Your task to perform on an android device: Search for Italian restaurants on Maps Image 0: 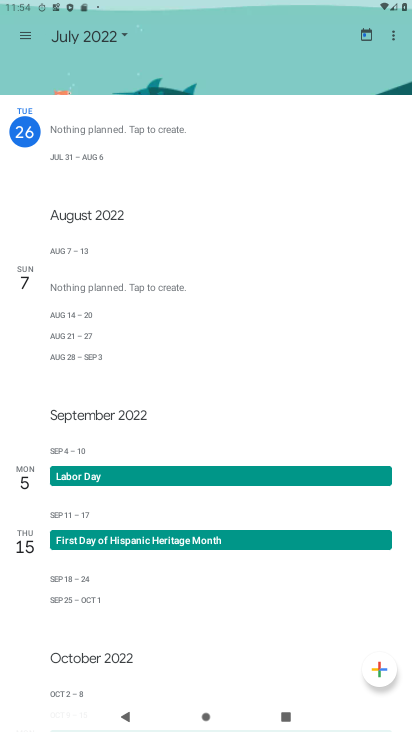
Step 0: press home button
Your task to perform on an android device: Search for Italian restaurants on Maps Image 1: 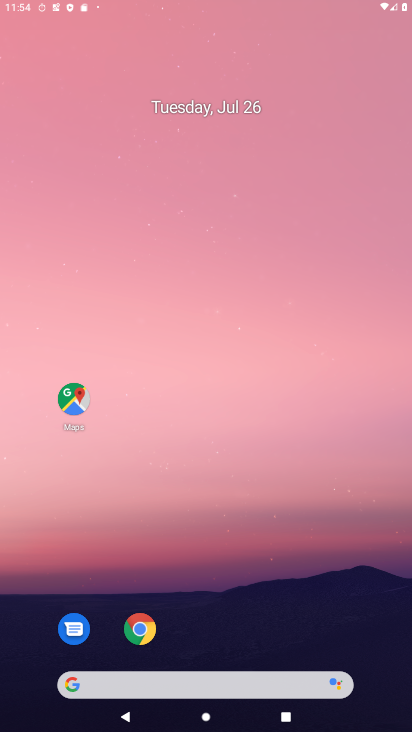
Step 1: drag from (379, 631) to (149, 51)
Your task to perform on an android device: Search for Italian restaurants on Maps Image 2: 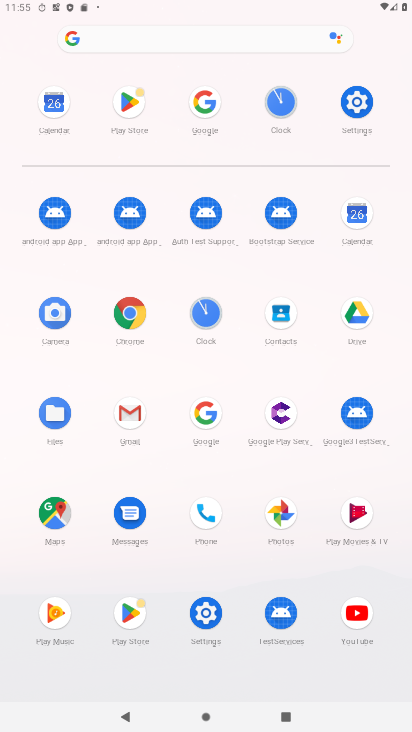
Step 2: click (63, 518)
Your task to perform on an android device: Search for Italian restaurants on Maps Image 3: 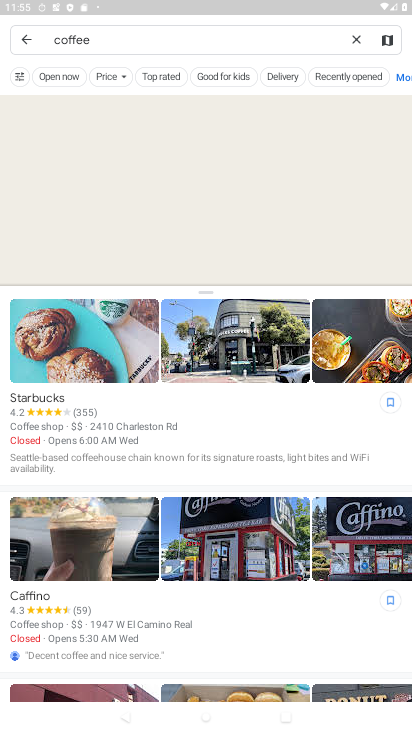
Step 3: click (356, 35)
Your task to perform on an android device: Search for Italian restaurants on Maps Image 4: 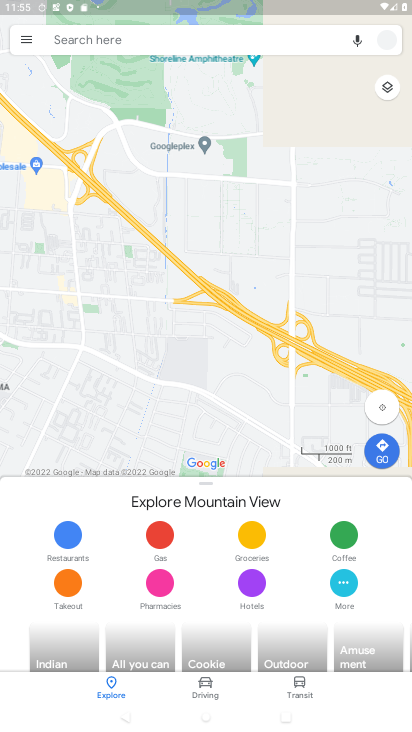
Step 4: click (141, 36)
Your task to perform on an android device: Search for Italian restaurants on Maps Image 5: 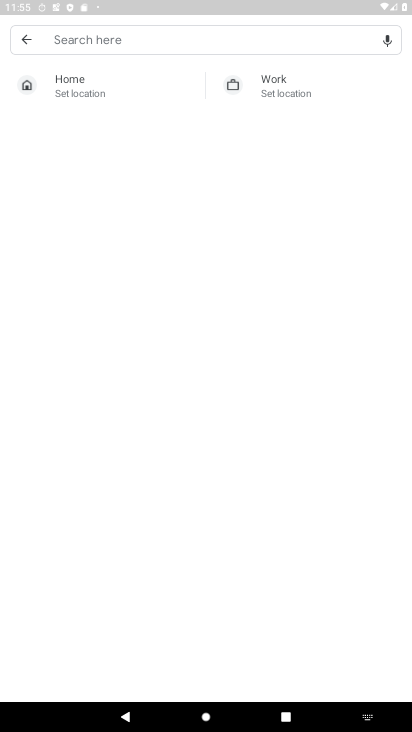
Step 5: type " Italian restaurants"
Your task to perform on an android device: Search for Italian restaurants on Maps Image 6: 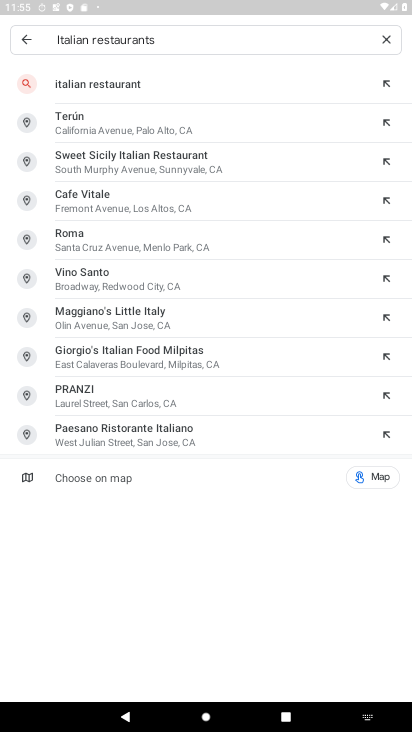
Step 6: click (112, 89)
Your task to perform on an android device: Search for Italian restaurants on Maps Image 7: 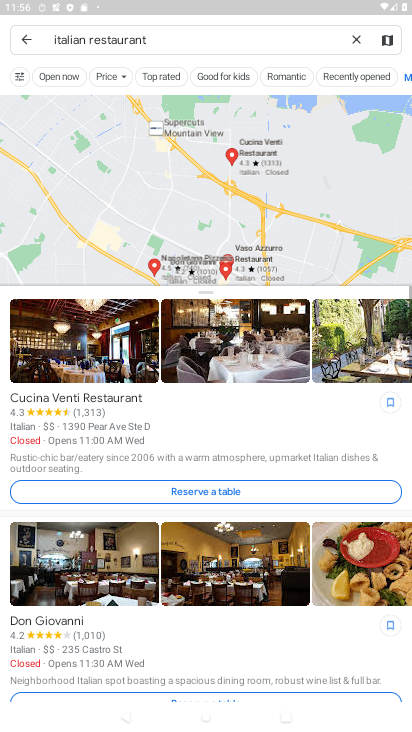
Step 7: task complete